Your task to perform on an android device: open app "Messages" (install if not already installed) Image 0: 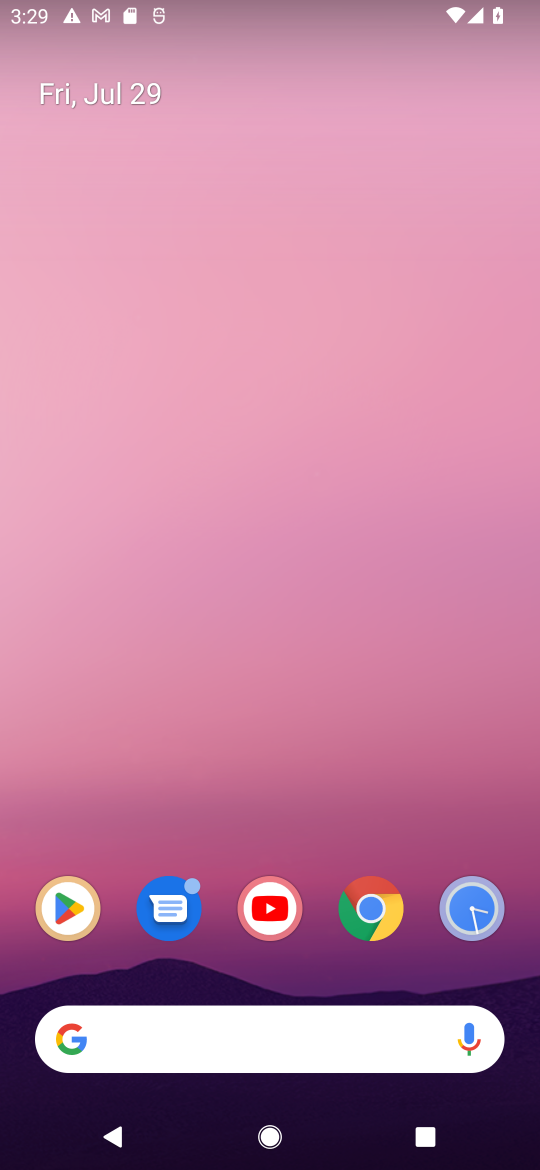
Step 0: click (156, 920)
Your task to perform on an android device: open app "Messages" (install if not already installed) Image 1: 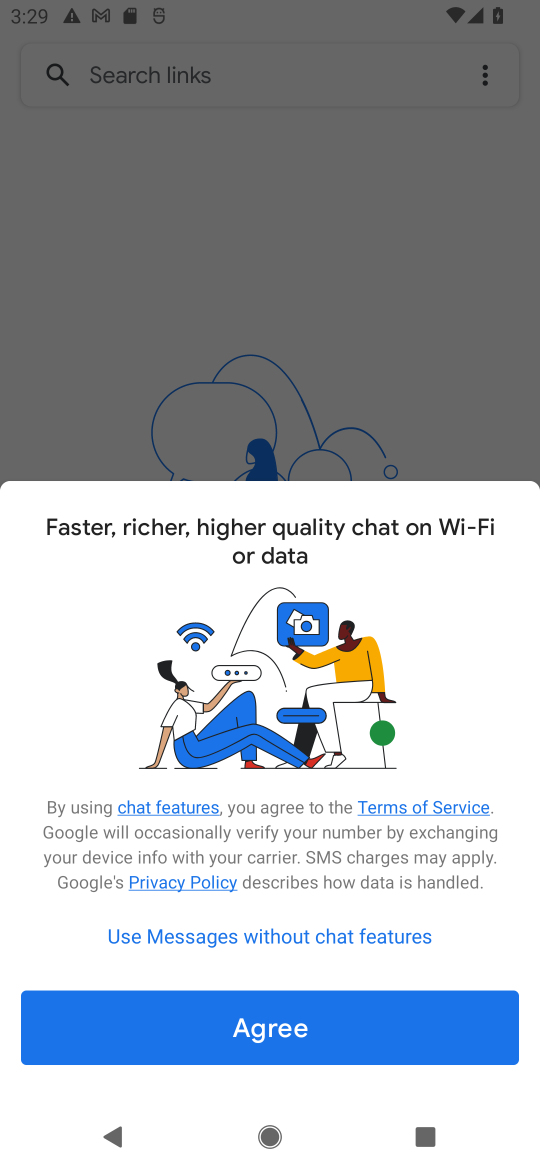
Step 1: click (473, 1041)
Your task to perform on an android device: open app "Messages" (install if not already installed) Image 2: 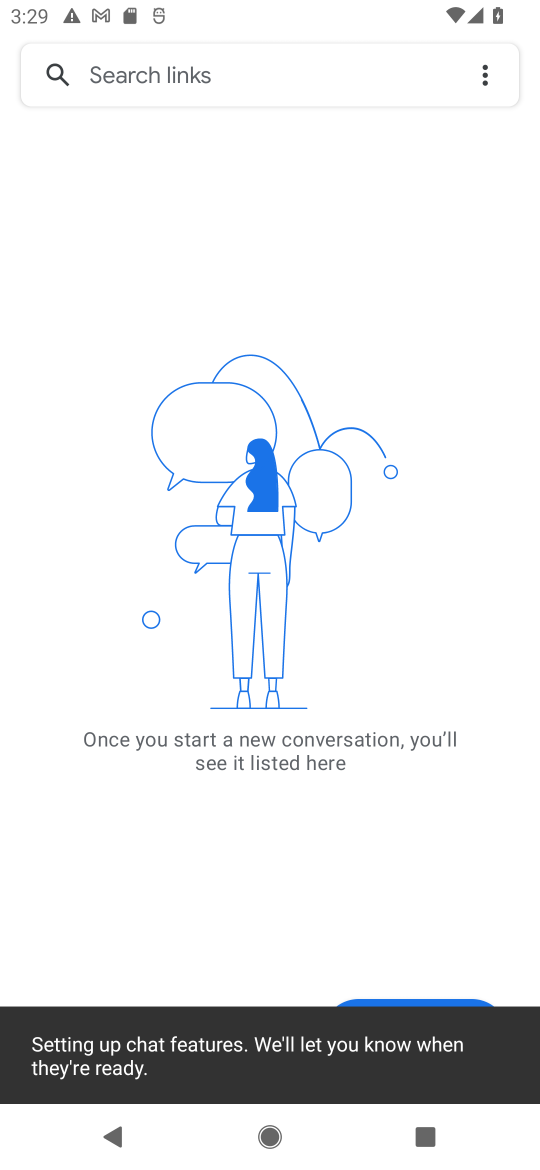
Step 2: task complete